Your task to perform on an android device: turn on priority inbox in the gmail app Image 0: 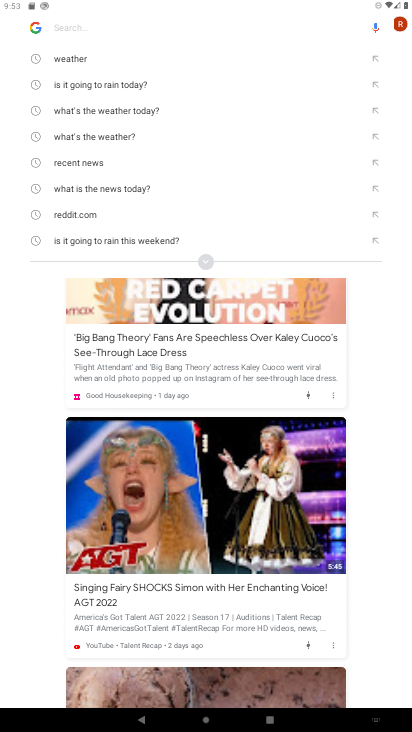
Step 0: press home button
Your task to perform on an android device: turn on priority inbox in the gmail app Image 1: 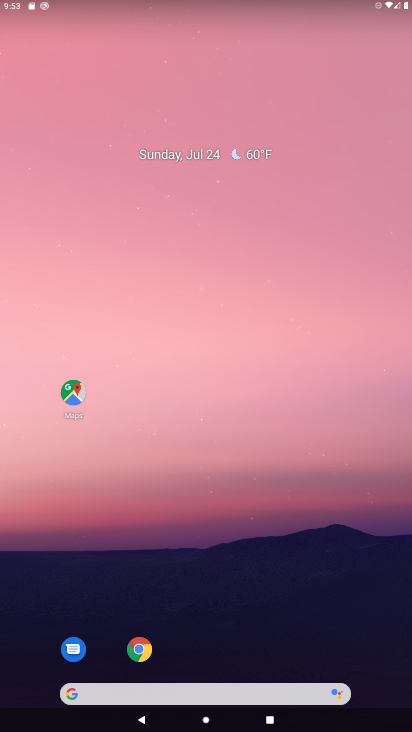
Step 1: drag from (362, 613) to (243, 54)
Your task to perform on an android device: turn on priority inbox in the gmail app Image 2: 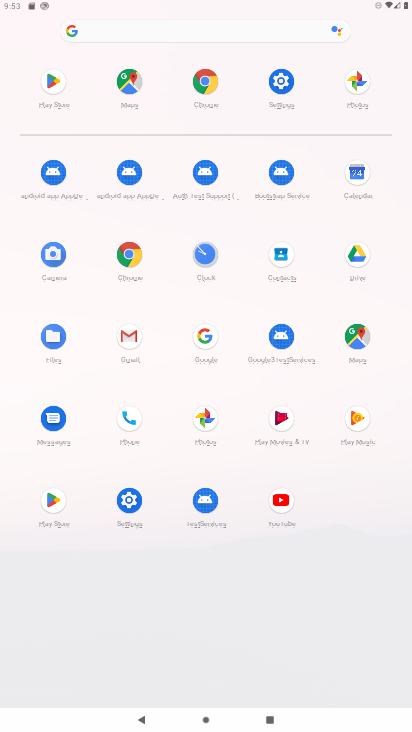
Step 2: click (128, 339)
Your task to perform on an android device: turn on priority inbox in the gmail app Image 3: 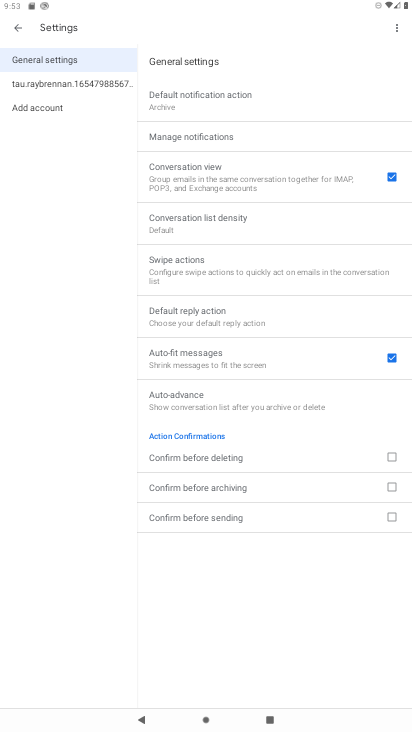
Step 3: click (34, 88)
Your task to perform on an android device: turn on priority inbox in the gmail app Image 4: 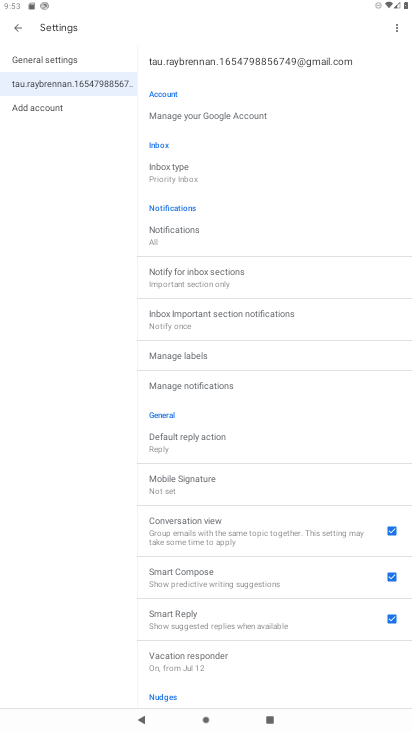
Step 4: click (183, 166)
Your task to perform on an android device: turn on priority inbox in the gmail app Image 5: 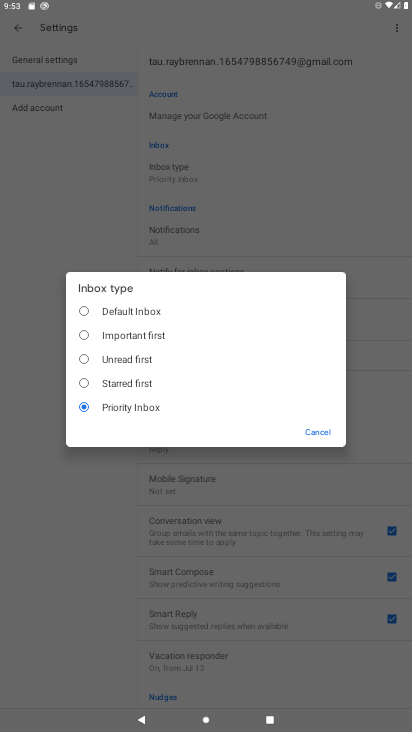
Step 5: task complete